Your task to perform on an android device: allow notifications from all sites in the chrome app Image 0: 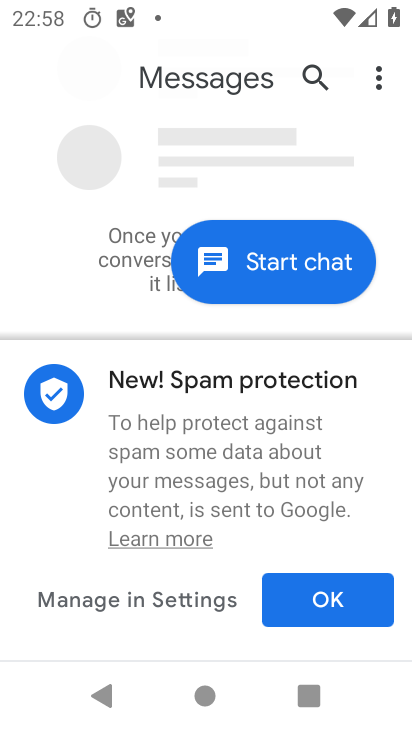
Step 0: press home button
Your task to perform on an android device: allow notifications from all sites in the chrome app Image 1: 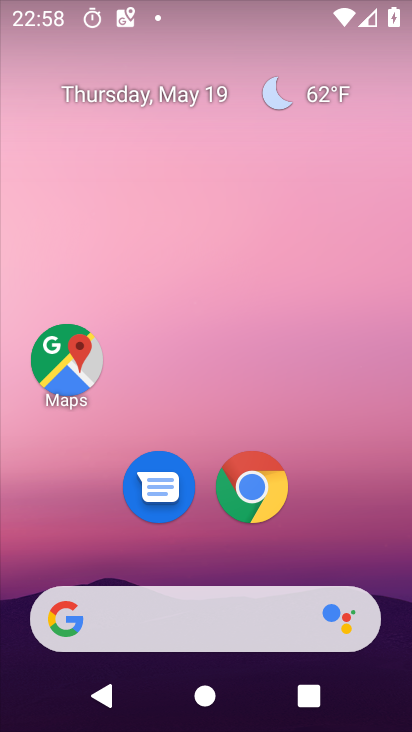
Step 1: click (255, 493)
Your task to perform on an android device: allow notifications from all sites in the chrome app Image 2: 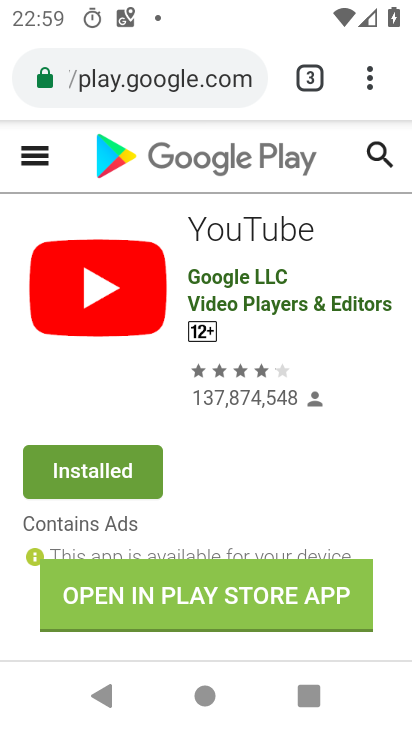
Step 2: click (376, 81)
Your task to perform on an android device: allow notifications from all sites in the chrome app Image 3: 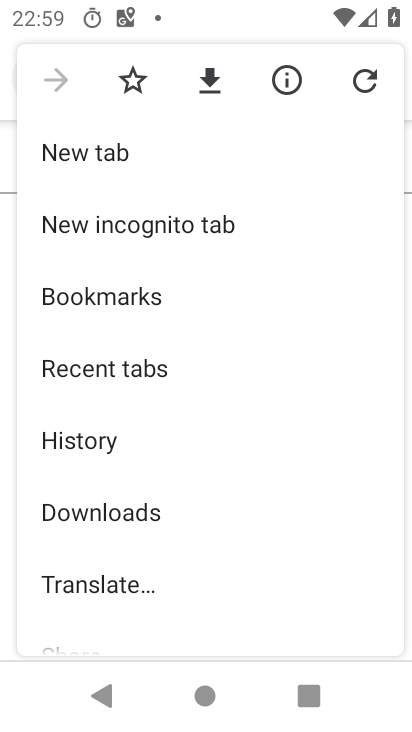
Step 3: drag from (184, 602) to (225, 209)
Your task to perform on an android device: allow notifications from all sites in the chrome app Image 4: 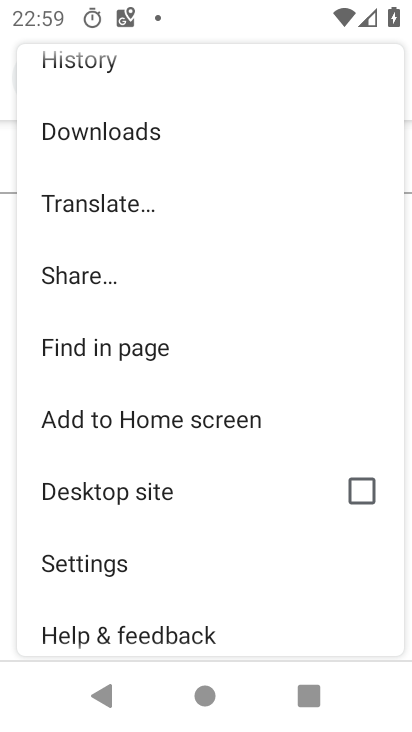
Step 4: drag from (197, 561) to (224, 202)
Your task to perform on an android device: allow notifications from all sites in the chrome app Image 5: 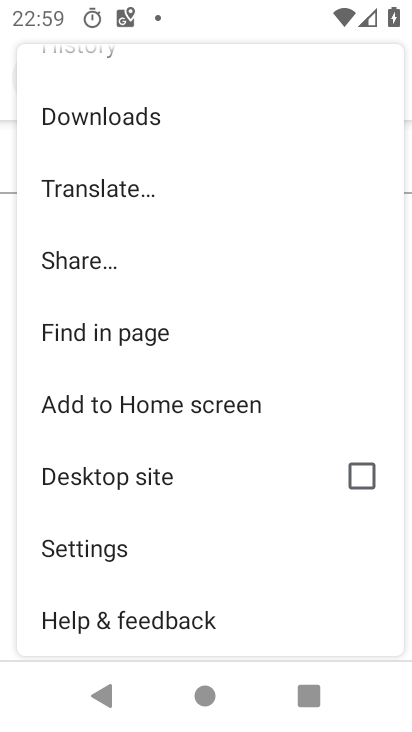
Step 5: click (118, 556)
Your task to perform on an android device: allow notifications from all sites in the chrome app Image 6: 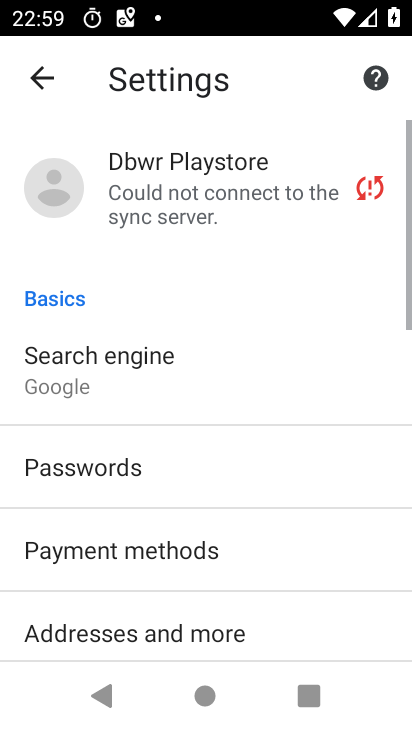
Step 6: drag from (247, 522) to (240, 256)
Your task to perform on an android device: allow notifications from all sites in the chrome app Image 7: 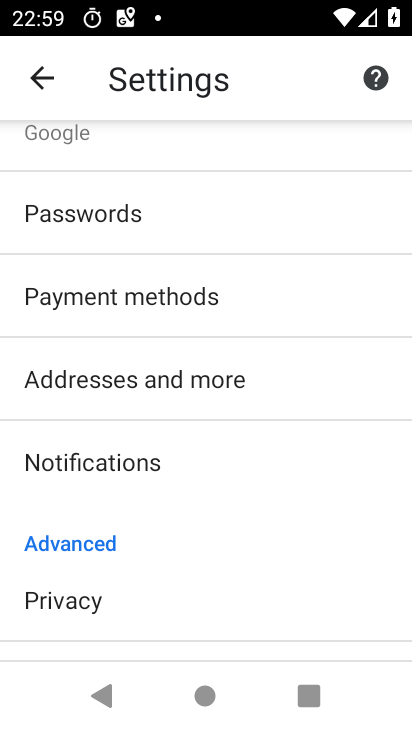
Step 7: drag from (216, 593) to (223, 247)
Your task to perform on an android device: allow notifications from all sites in the chrome app Image 8: 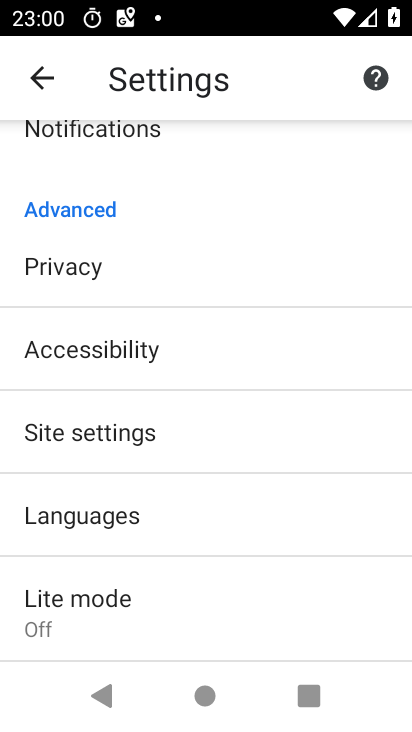
Step 8: drag from (199, 580) to (182, 249)
Your task to perform on an android device: allow notifications from all sites in the chrome app Image 9: 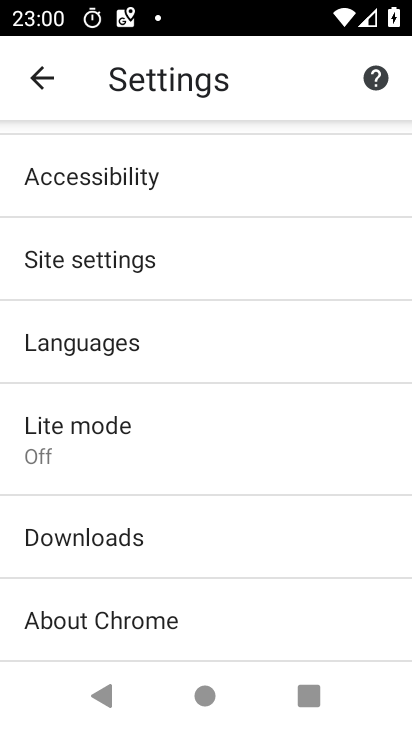
Step 9: drag from (244, 220) to (262, 531)
Your task to perform on an android device: allow notifications from all sites in the chrome app Image 10: 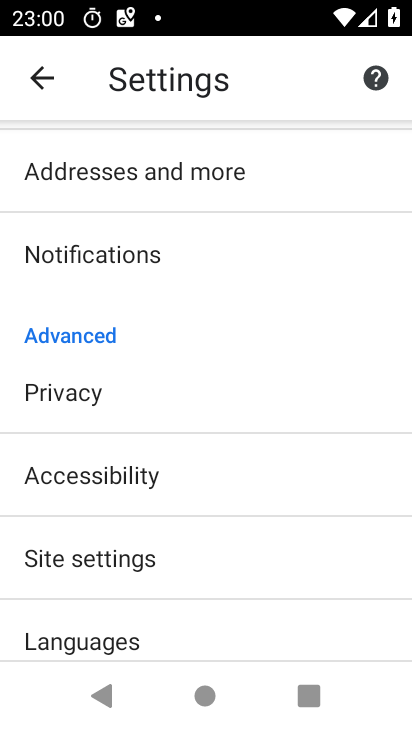
Step 10: click (136, 253)
Your task to perform on an android device: allow notifications from all sites in the chrome app Image 11: 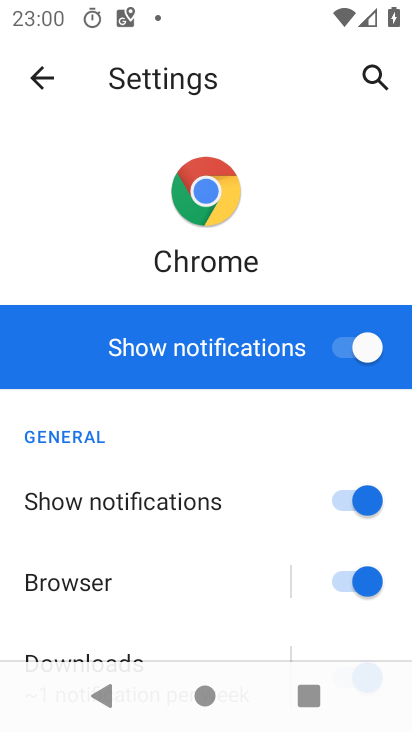
Step 11: task complete